Your task to perform on an android device: Open the phone app and click the voicemail tab. Image 0: 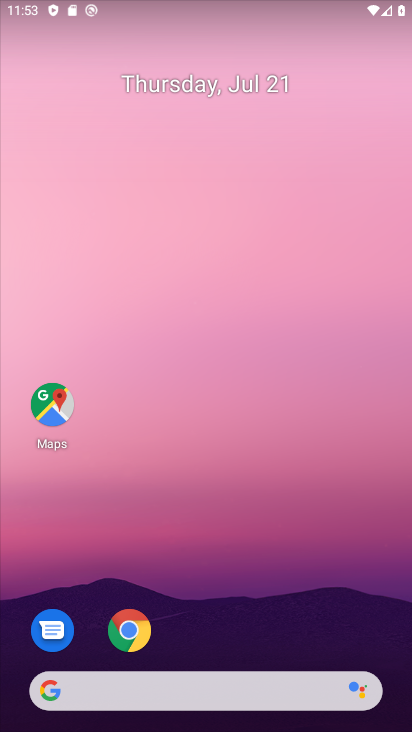
Step 0: drag from (201, 625) to (183, 124)
Your task to perform on an android device: Open the phone app and click the voicemail tab. Image 1: 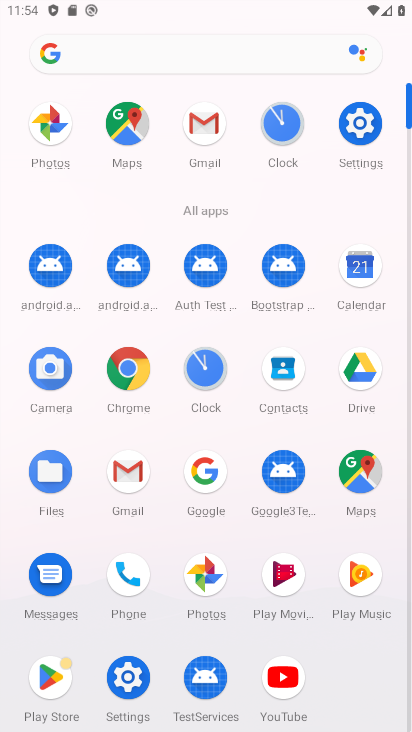
Step 1: click (140, 586)
Your task to perform on an android device: Open the phone app and click the voicemail tab. Image 2: 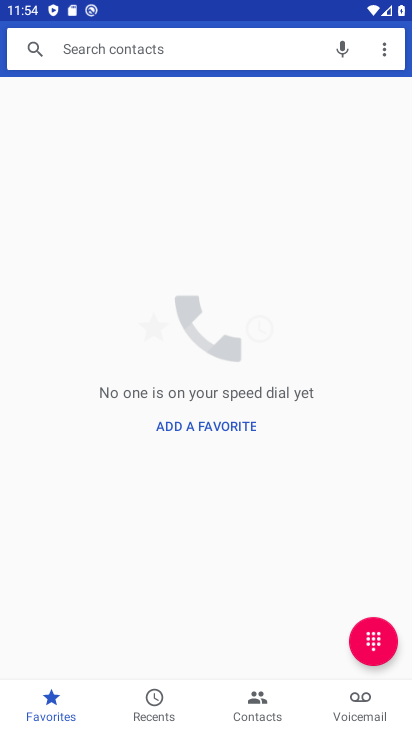
Step 2: click (362, 699)
Your task to perform on an android device: Open the phone app and click the voicemail tab. Image 3: 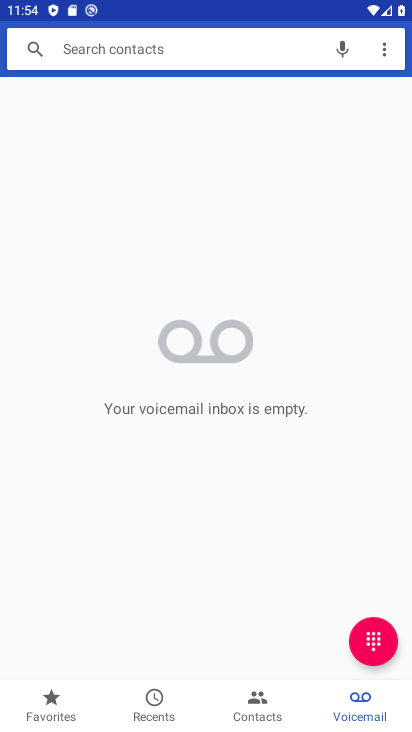
Step 3: task complete